Your task to perform on an android device: Open Google Chrome and open the bookmarks view Image 0: 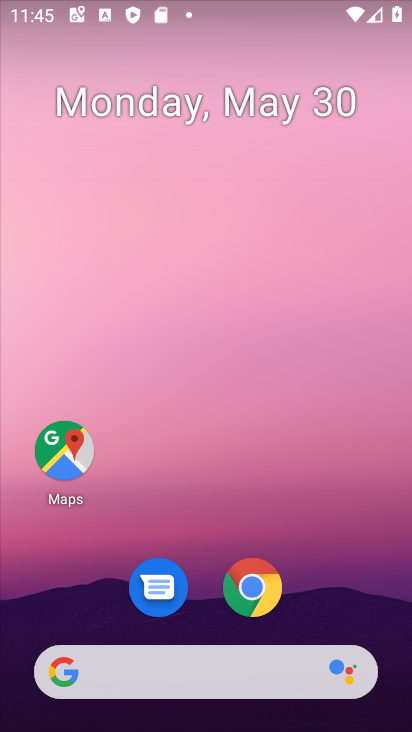
Step 0: click (281, 588)
Your task to perform on an android device: Open Google Chrome and open the bookmarks view Image 1: 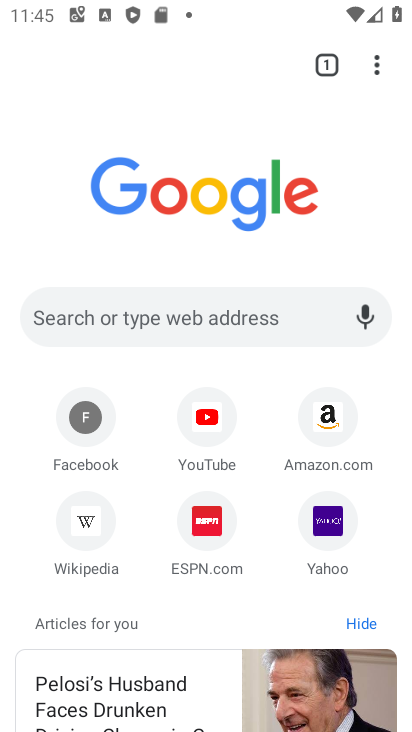
Step 1: click (386, 69)
Your task to perform on an android device: Open Google Chrome and open the bookmarks view Image 2: 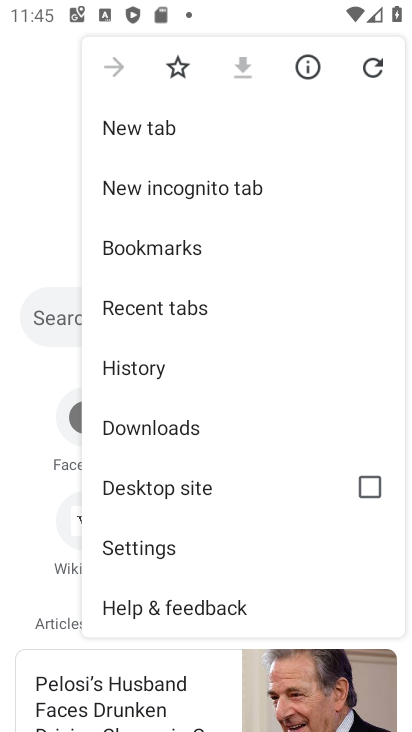
Step 2: click (207, 252)
Your task to perform on an android device: Open Google Chrome and open the bookmarks view Image 3: 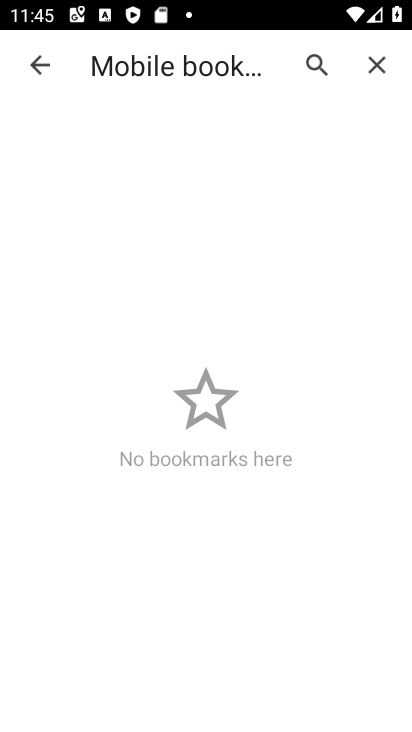
Step 3: task complete